Your task to perform on an android device: uninstall "Pandora - Music & Podcasts" Image 0: 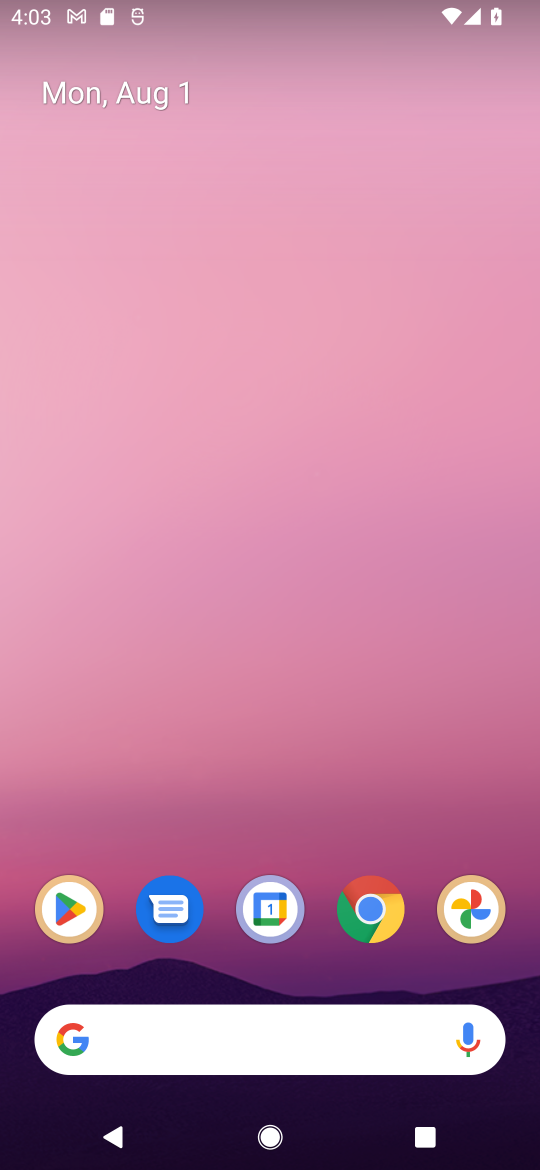
Step 0: click (60, 909)
Your task to perform on an android device: uninstall "Pandora - Music & Podcasts" Image 1: 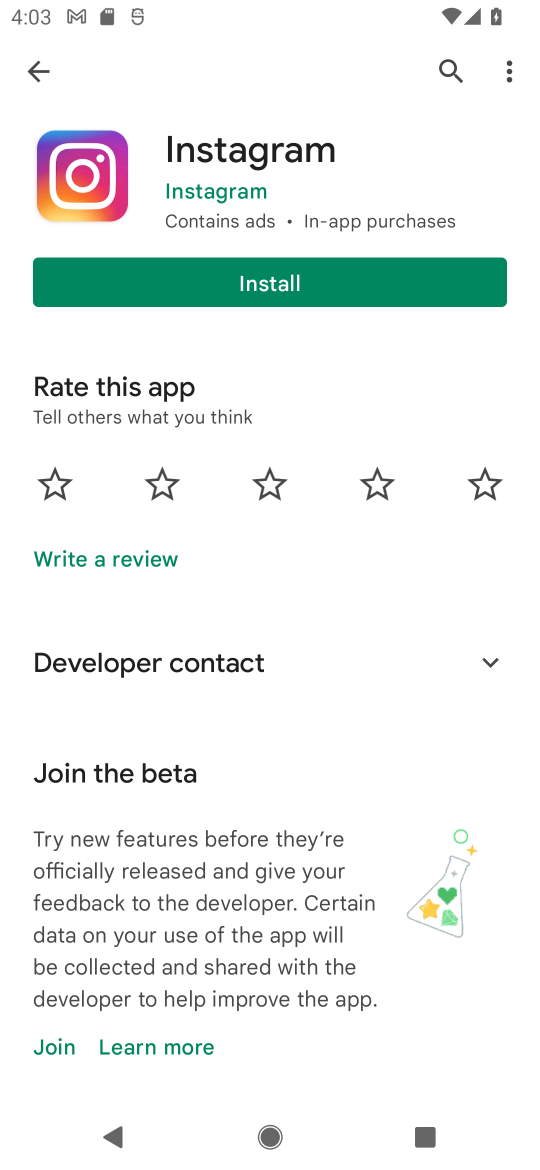
Step 1: click (43, 66)
Your task to perform on an android device: uninstall "Pandora - Music & Podcasts" Image 2: 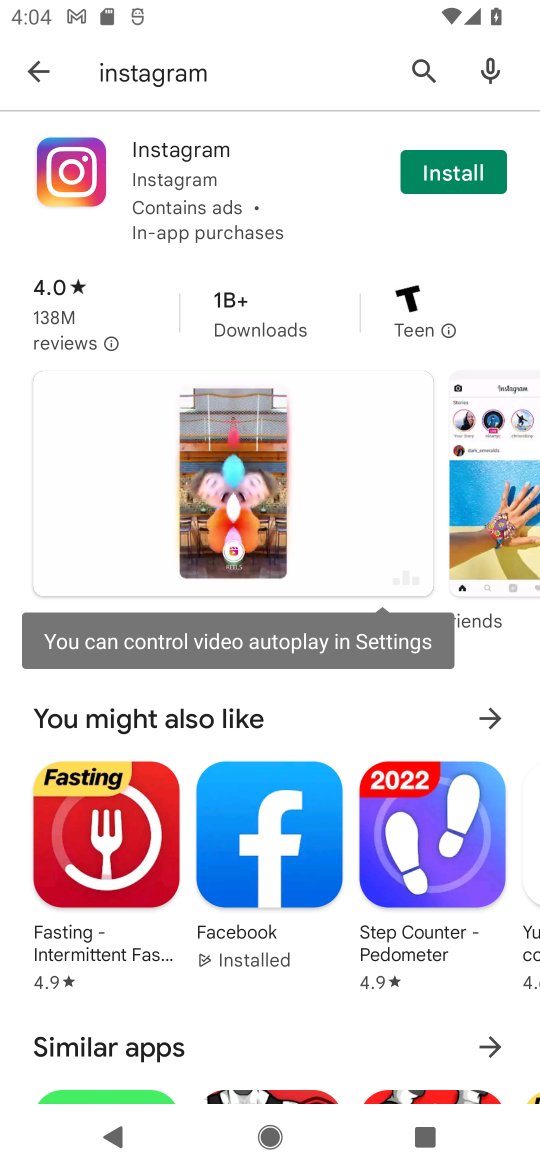
Step 2: click (164, 70)
Your task to perform on an android device: uninstall "Pandora - Music & Podcasts" Image 3: 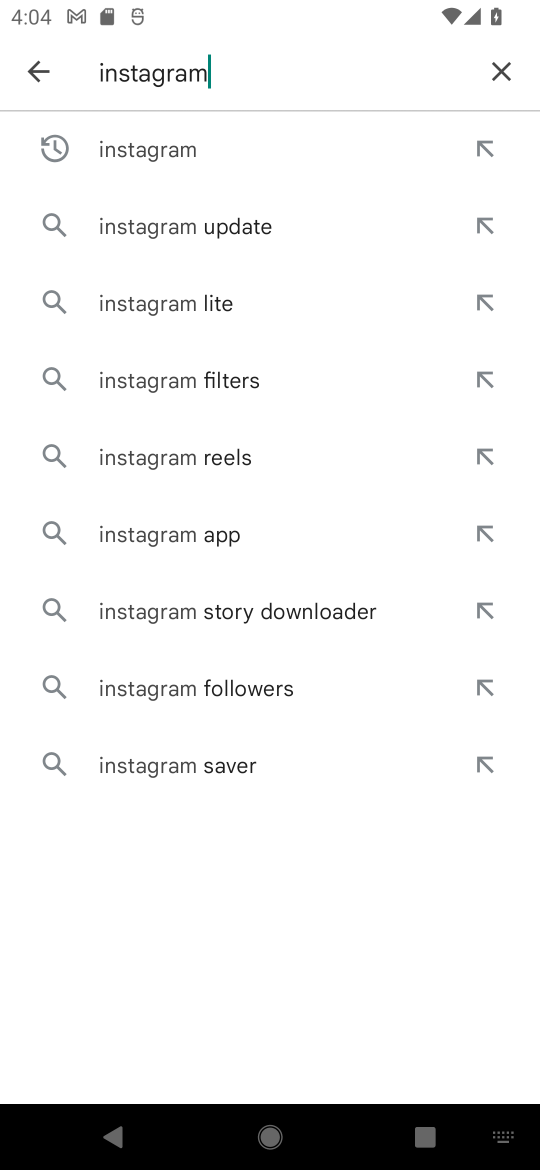
Step 3: click (500, 67)
Your task to perform on an android device: uninstall "Pandora - Music & Podcasts" Image 4: 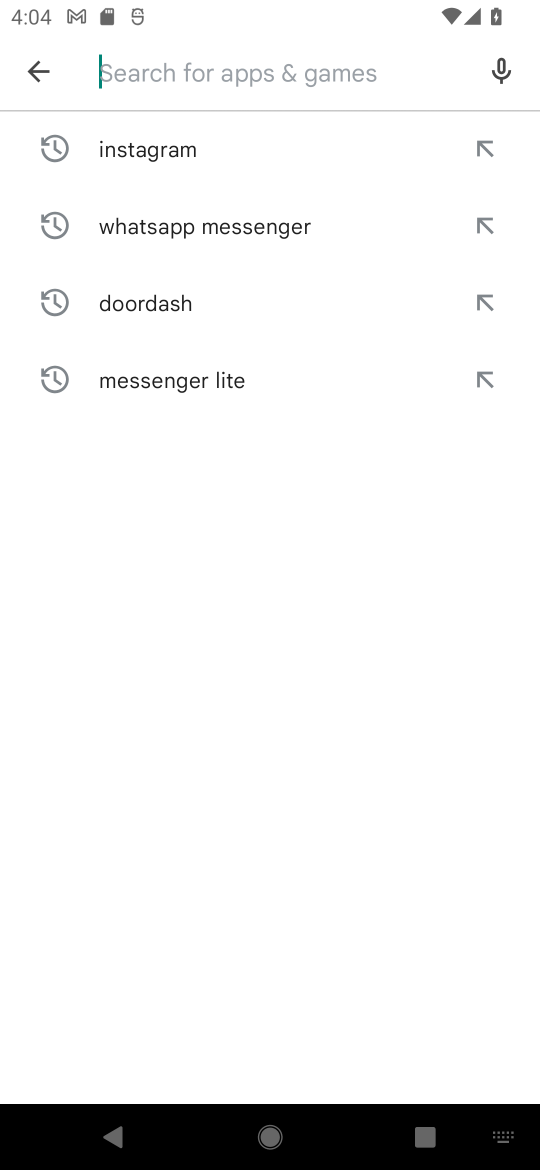
Step 4: type "Pandora"
Your task to perform on an android device: uninstall "Pandora - Music & Podcasts" Image 5: 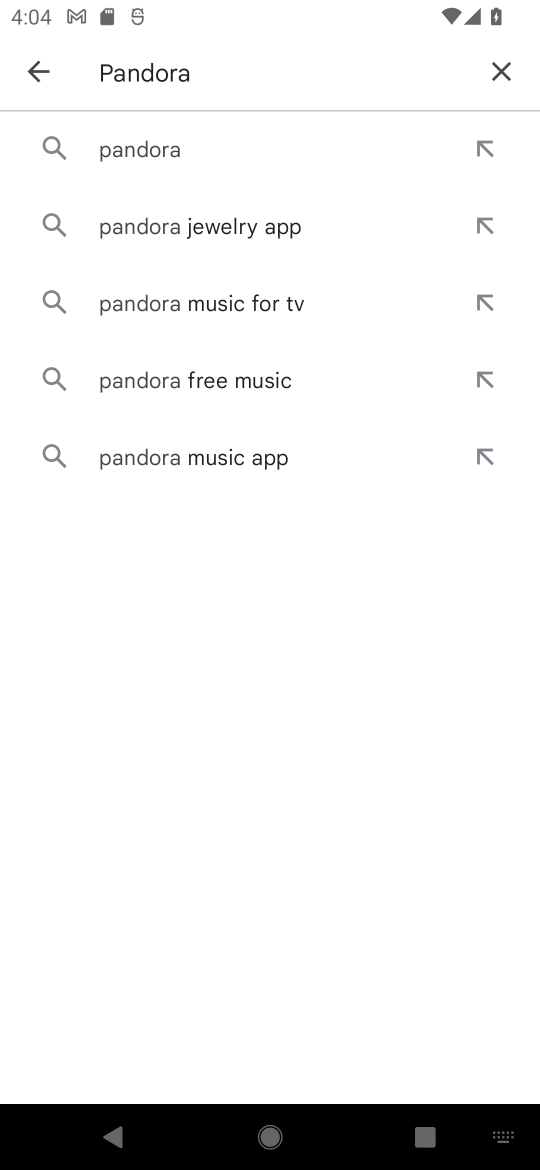
Step 5: click (162, 180)
Your task to perform on an android device: uninstall "Pandora - Music & Podcasts" Image 6: 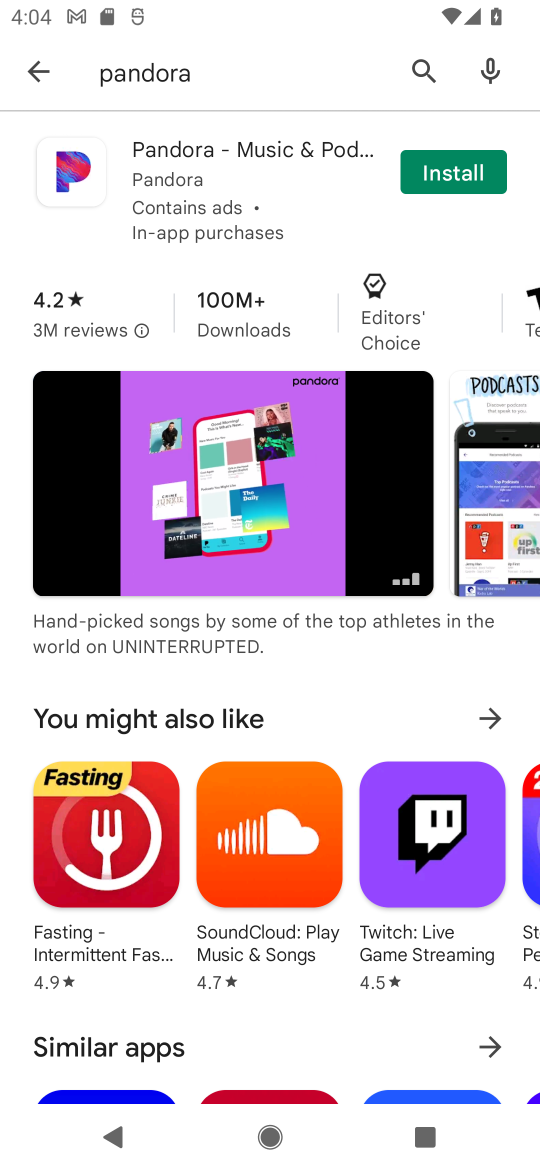
Step 6: task complete